Your task to perform on an android device: turn off sleep mode Image 0: 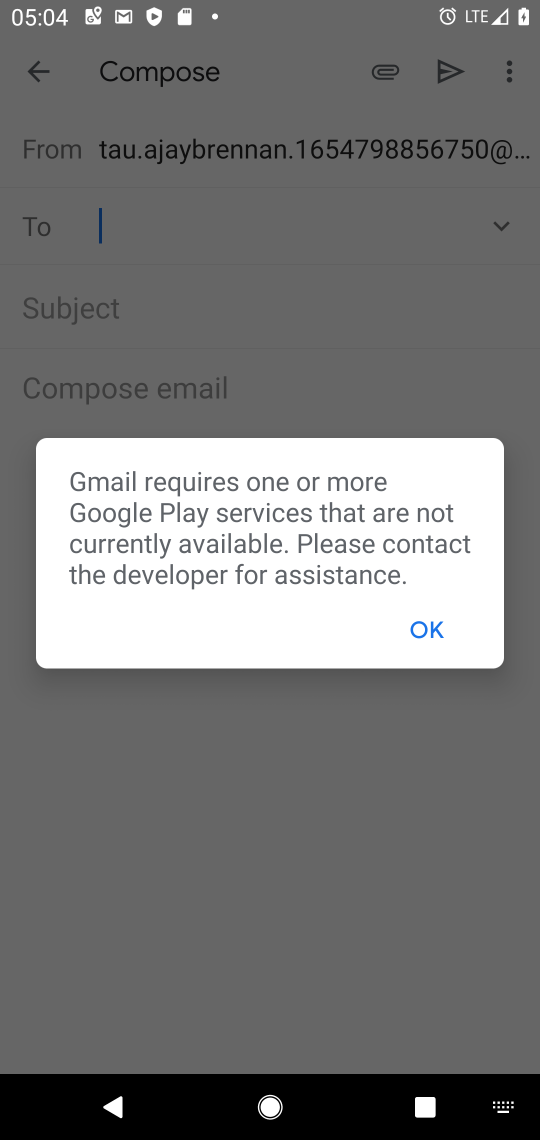
Step 0: press back button
Your task to perform on an android device: turn off sleep mode Image 1: 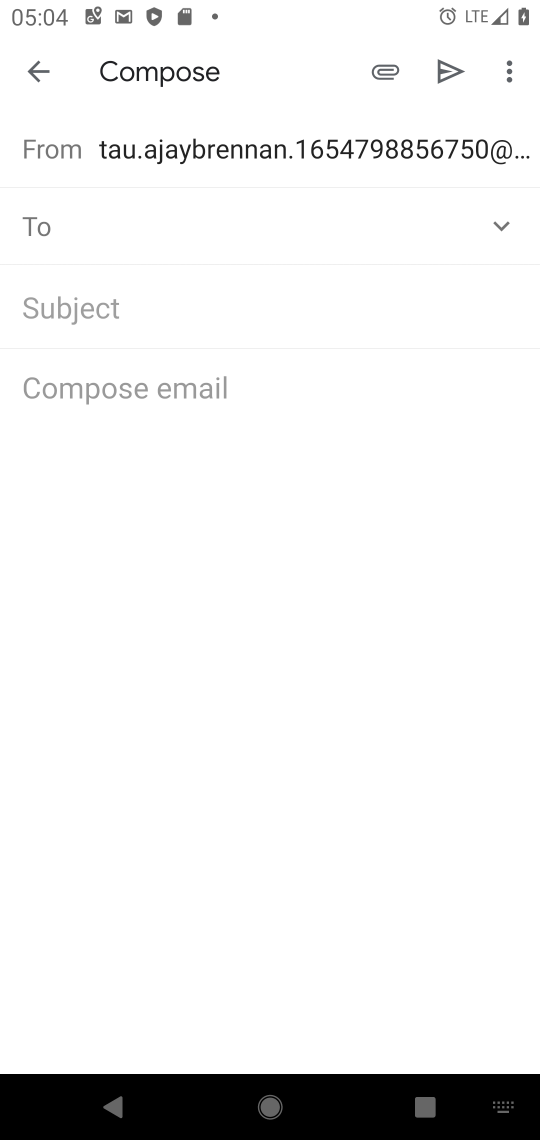
Step 1: press back button
Your task to perform on an android device: turn off sleep mode Image 2: 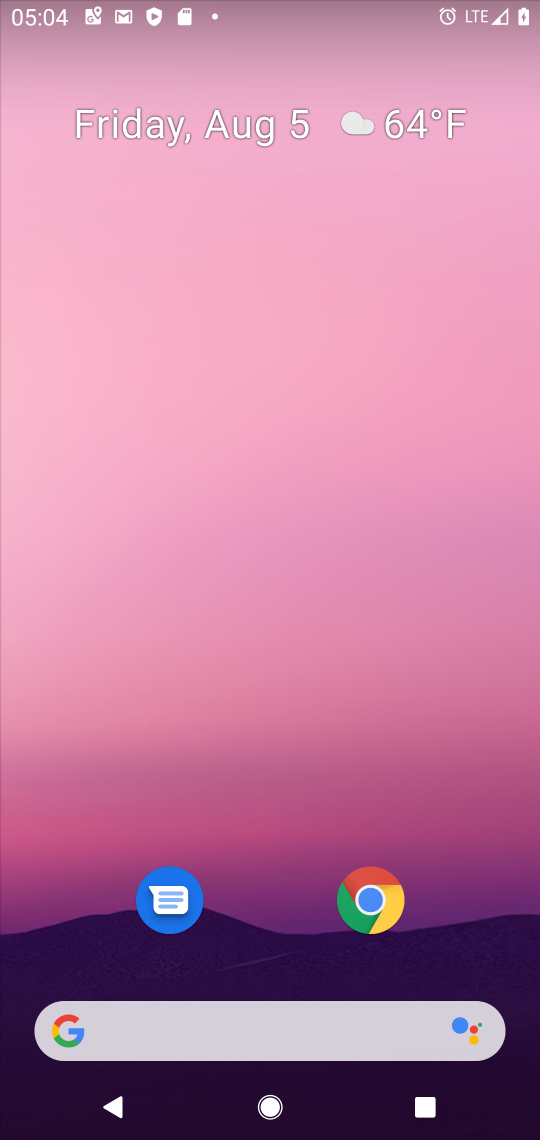
Step 2: drag from (274, 802) to (461, 0)
Your task to perform on an android device: turn off sleep mode Image 3: 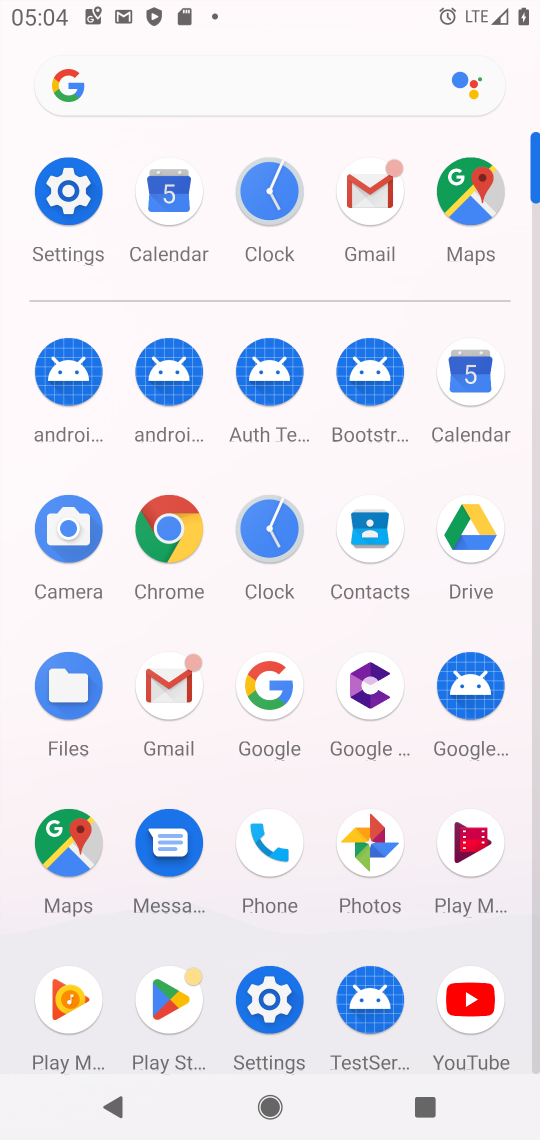
Step 3: click (88, 192)
Your task to perform on an android device: turn off sleep mode Image 4: 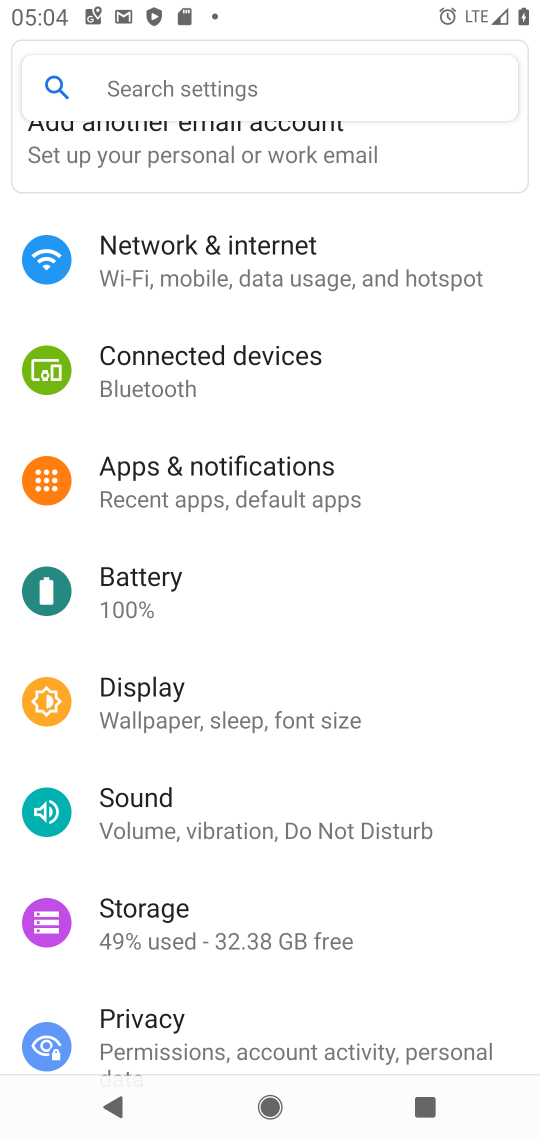
Step 4: click (275, 92)
Your task to perform on an android device: turn off sleep mode Image 5: 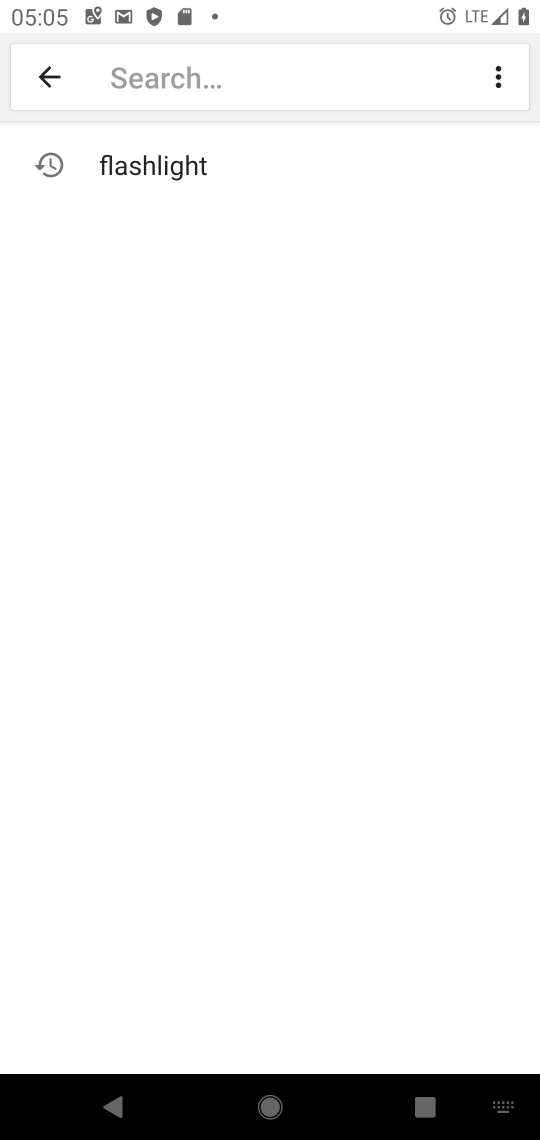
Step 5: type "sleep mode"
Your task to perform on an android device: turn off sleep mode Image 6: 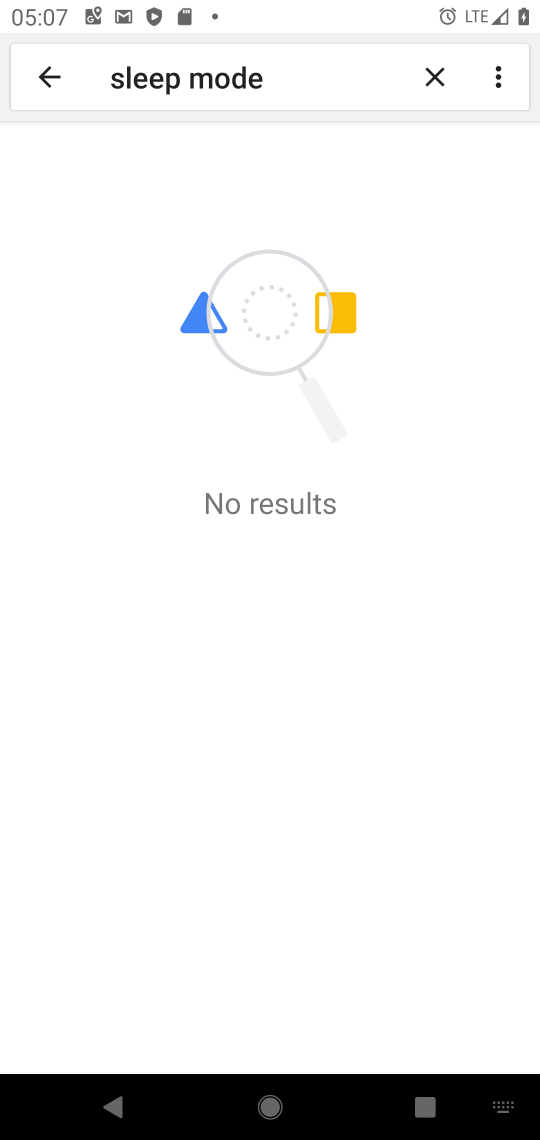
Step 6: task complete